Your task to perform on an android device: Go to Android settings Image 0: 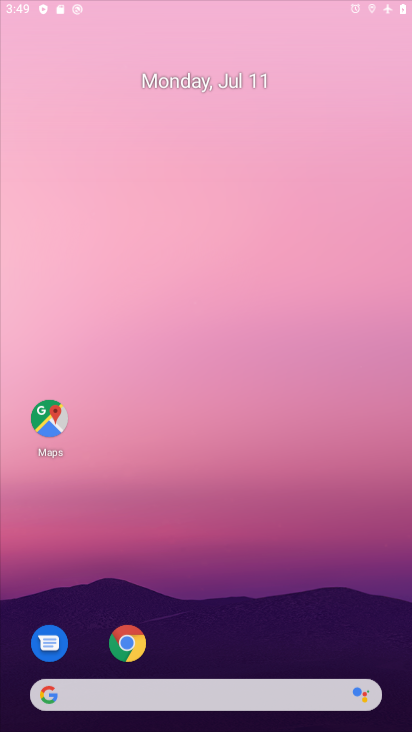
Step 0: click (190, 265)
Your task to perform on an android device: Go to Android settings Image 1: 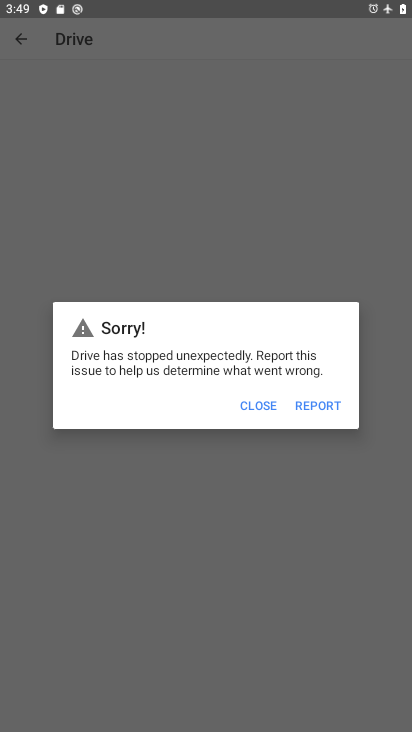
Step 1: press home button
Your task to perform on an android device: Go to Android settings Image 2: 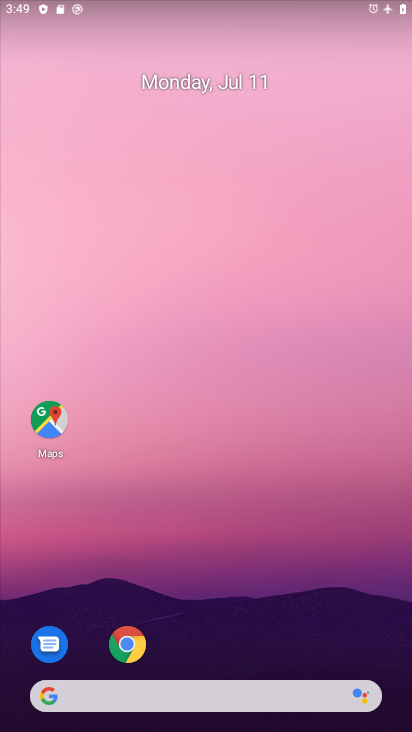
Step 2: drag from (255, 615) to (212, 73)
Your task to perform on an android device: Go to Android settings Image 3: 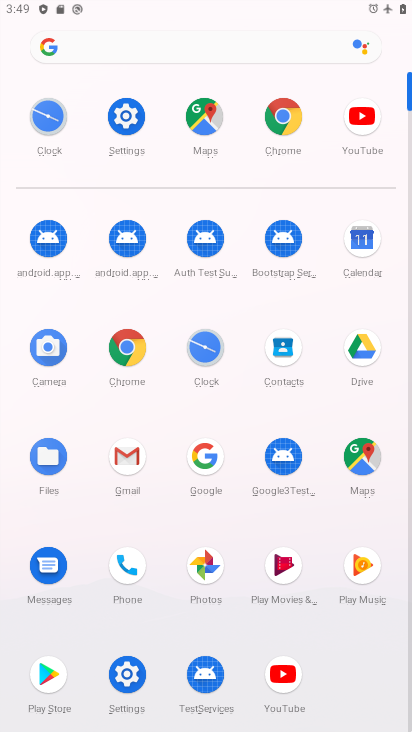
Step 3: click (120, 673)
Your task to perform on an android device: Go to Android settings Image 4: 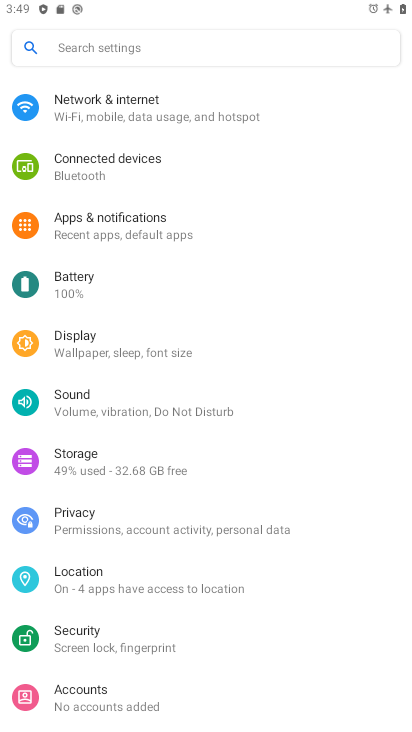
Step 4: drag from (228, 648) to (174, 269)
Your task to perform on an android device: Go to Android settings Image 5: 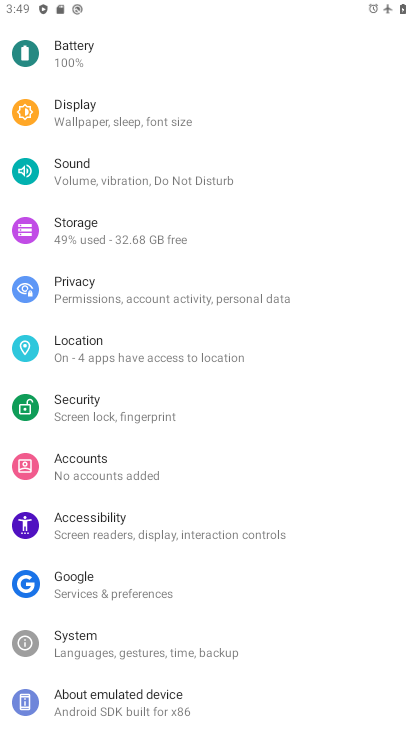
Step 5: drag from (196, 234) to (163, 505)
Your task to perform on an android device: Go to Android settings Image 6: 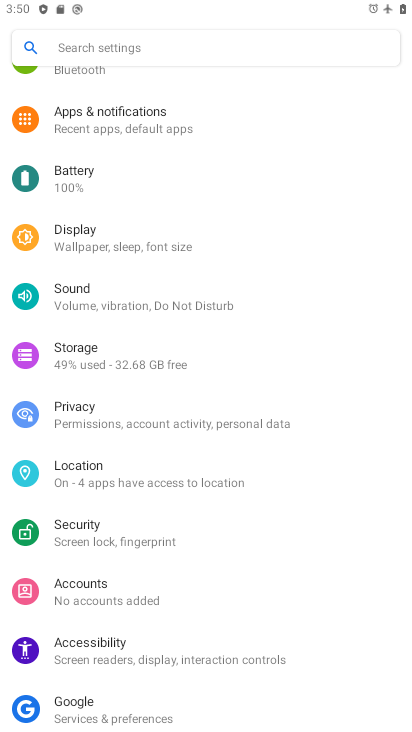
Step 6: drag from (218, 440) to (212, 321)
Your task to perform on an android device: Go to Android settings Image 7: 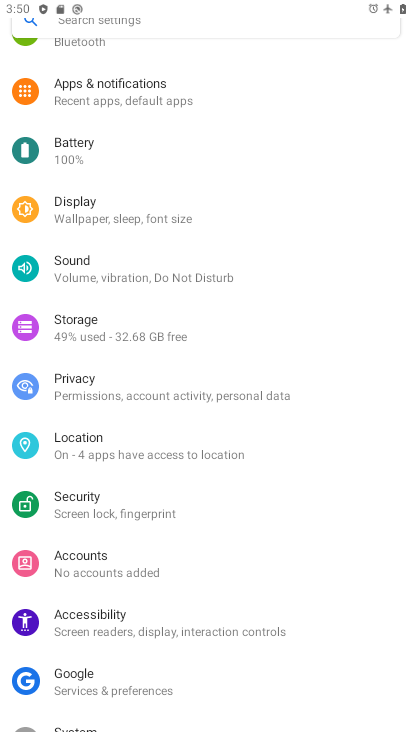
Step 7: drag from (196, 680) to (138, 288)
Your task to perform on an android device: Go to Android settings Image 8: 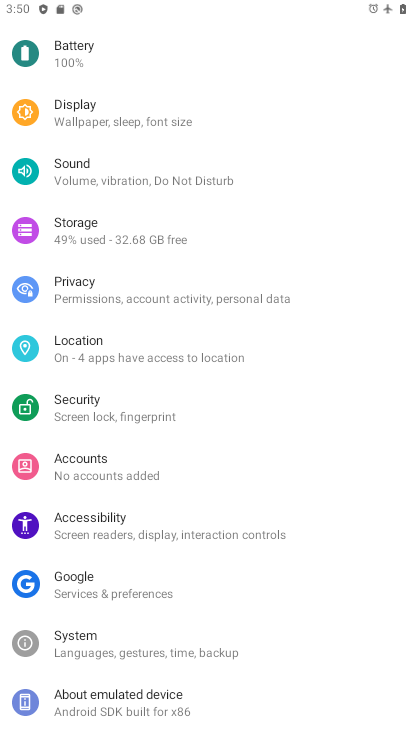
Step 8: click (142, 699)
Your task to perform on an android device: Go to Android settings Image 9: 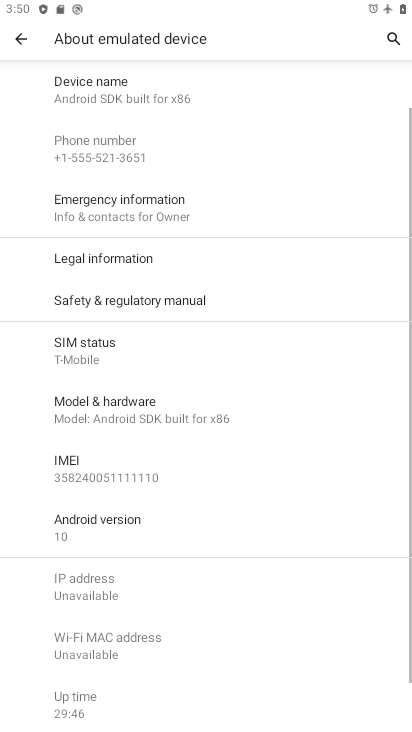
Step 9: drag from (239, 560) to (216, 326)
Your task to perform on an android device: Go to Android settings Image 10: 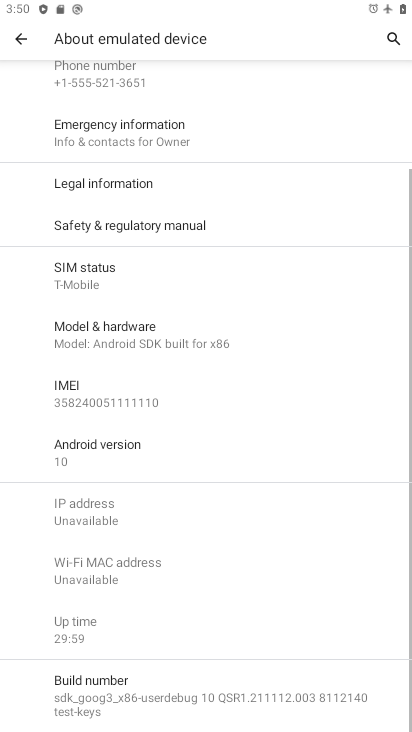
Step 10: drag from (247, 571) to (252, 373)
Your task to perform on an android device: Go to Android settings Image 11: 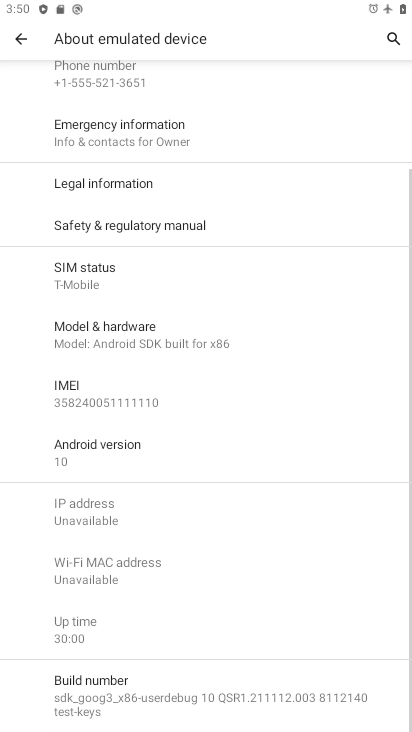
Step 11: drag from (264, 260) to (264, 515)
Your task to perform on an android device: Go to Android settings Image 12: 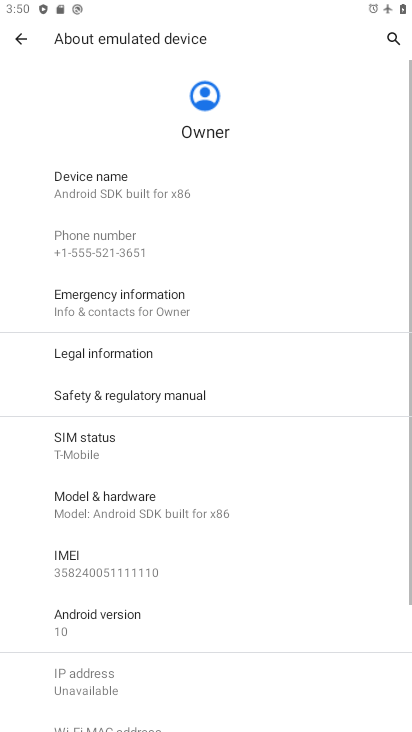
Step 12: drag from (308, 551) to (277, 283)
Your task to perform on an android device: Go to Android settings Image 13: 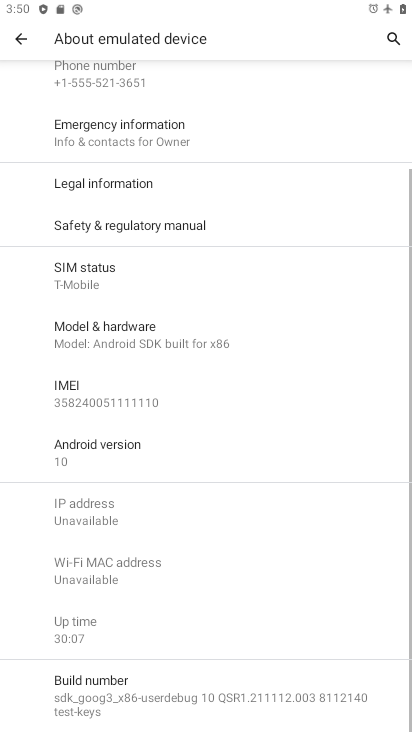
Step 13: click (172, 452)
Your task to perform on an android device: Go to Android settings Image 14: 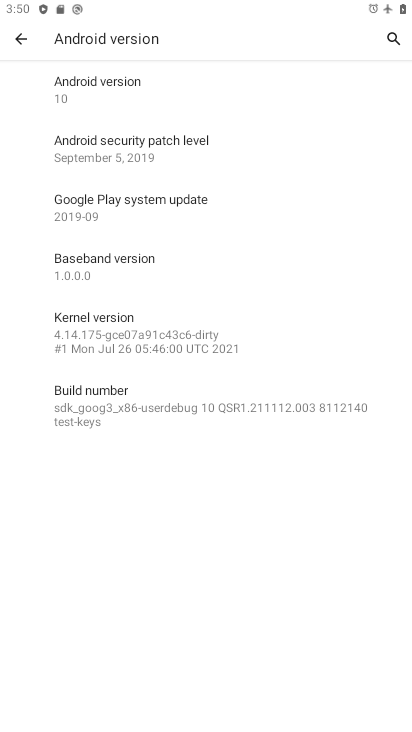
Step 14: task complete